Your task to perform on an android device: check out phone information Image 0: 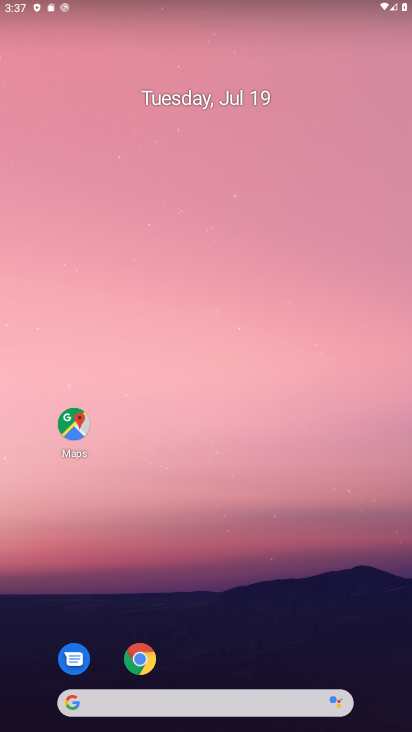
Step 0: click (288, 263)
Your task to perform on an android device: check out phone information Image 1: 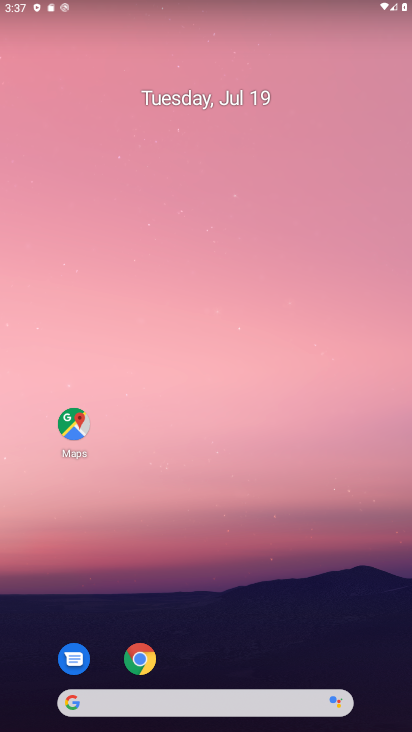
Step 1: click (260, 469)
Your task to perform on an android device: check out phone information Image 2: 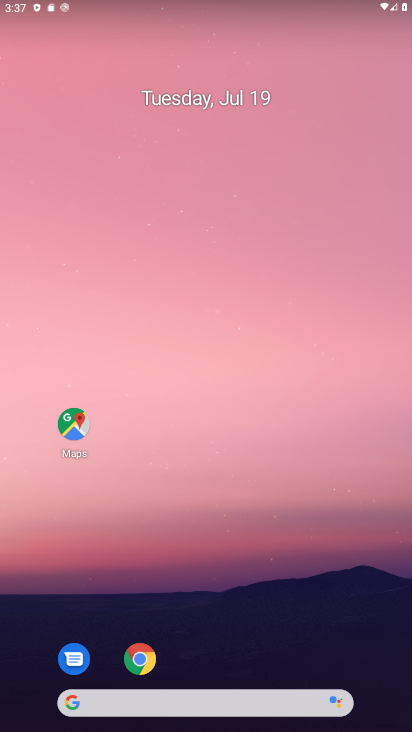
Step 2: click (260, 471)
Your task to perform on an android device: check out phone information Image 3: 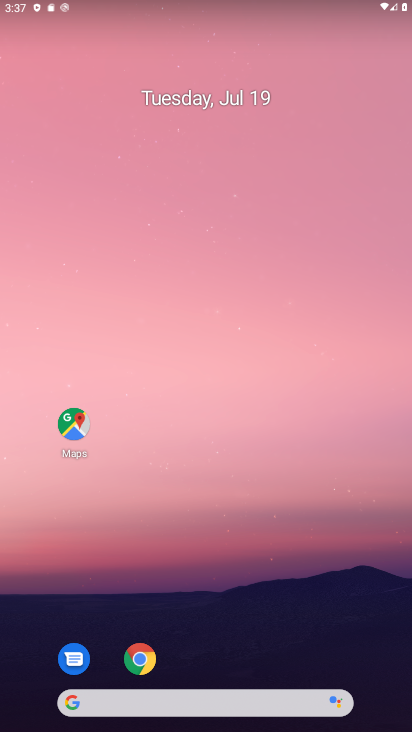
Step 3: drag from (249, 623) to (206, 245)
Your task to perform on an android device: check out phone information Image 4: 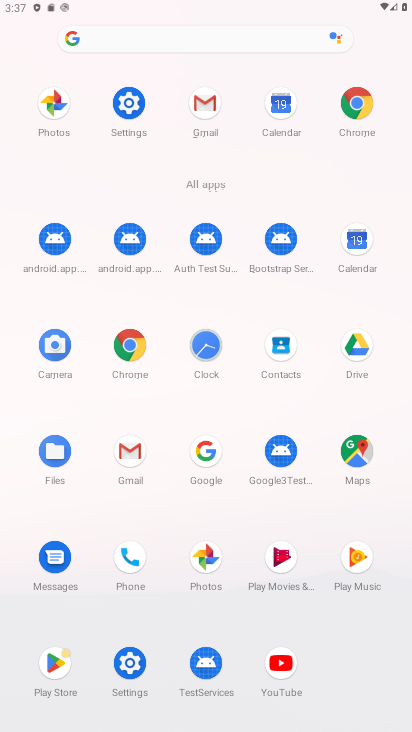
Step 4: click (133, 127)
Your task to perform on an android device: check out phone information Image 5: 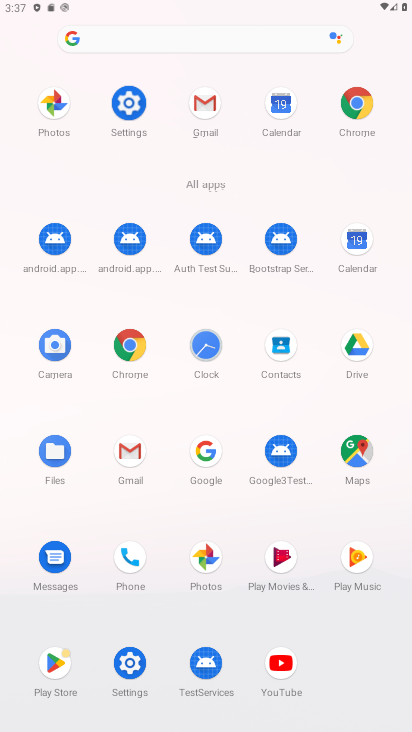
Step 5: click (133, 127)
Your task to perform on an android device: check out phone information Image 6: 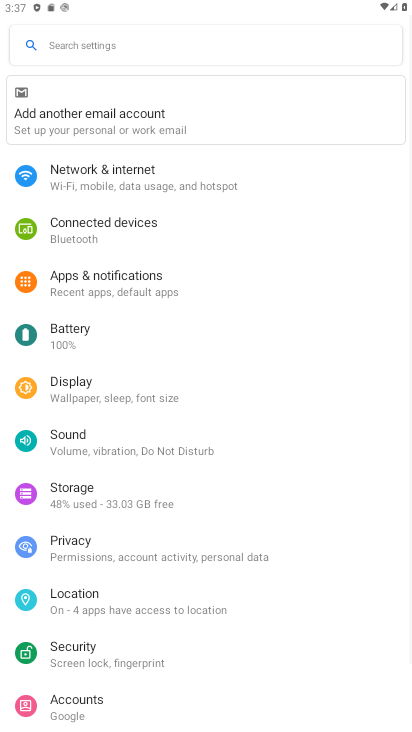
Step 6: drag from (112, 600) to (80, 297)
Your task to perform on an android device: check out phone information Image 7: 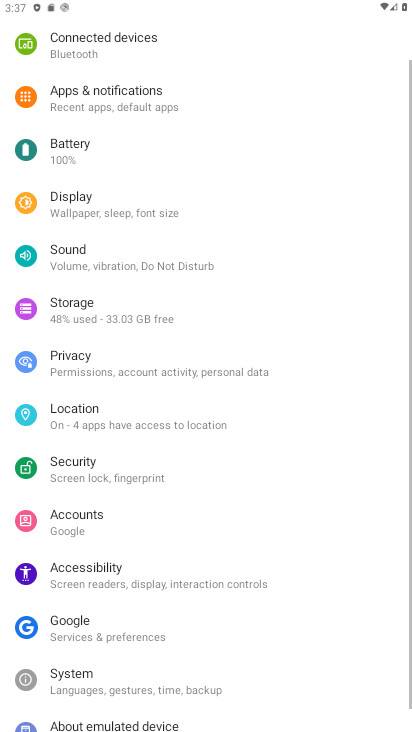
Step 7: drag from (118, 575) to (118, 255)
Your task to perform on an android device: check out phone information Image 8: 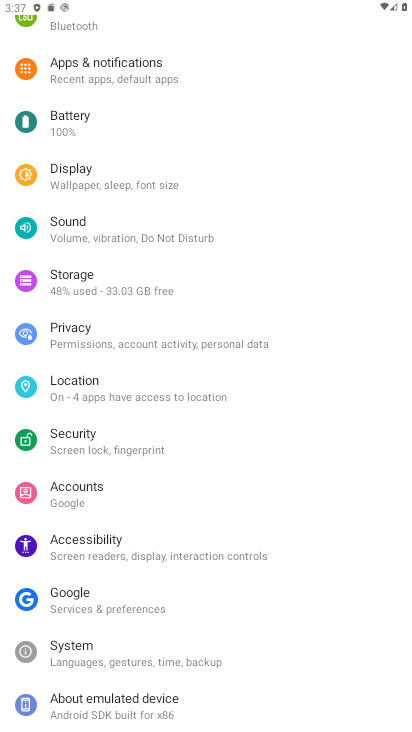
Step 8: drag from (154, 519) to (105, 156)
Your task to perform on an android device: check out phone information Image 9: 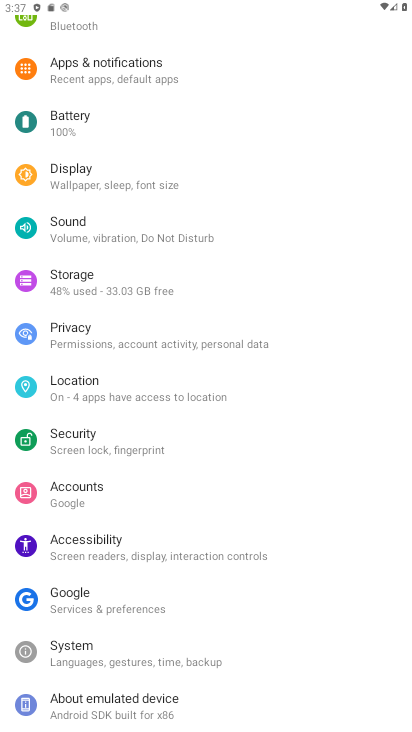
Step 9: click (119, 703)
Your task to perform on an android device: check out phone information Image 10: 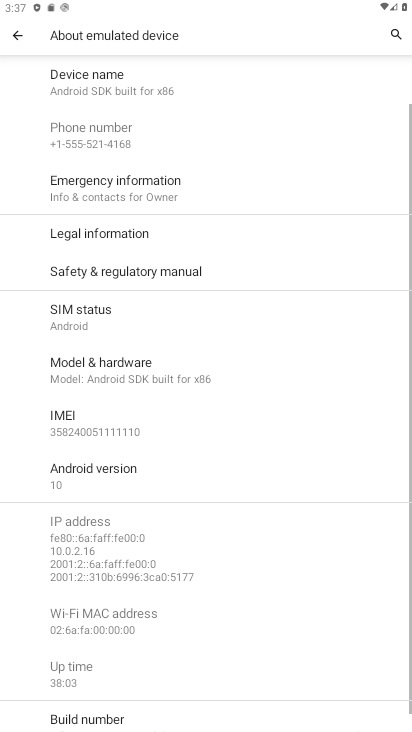
Step 10: task complete